Your task to perform on an android device: When is my next meeting? Image 0: 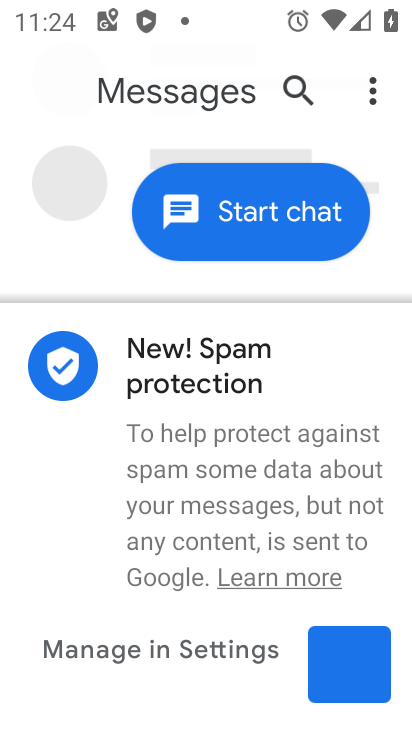
Step 0: press home button
Your task to perform on an android device: When is my next meeting? Image 1: 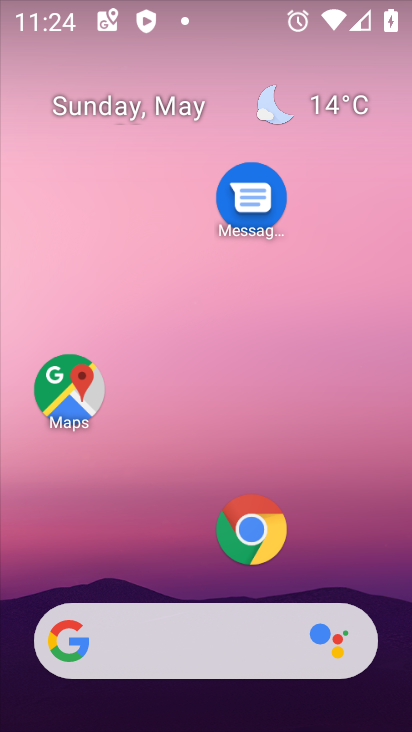
Step 1: drag from (165, 522) to (181, 196)
Your task to perform on an android device: When is my next meeting? Image 2: 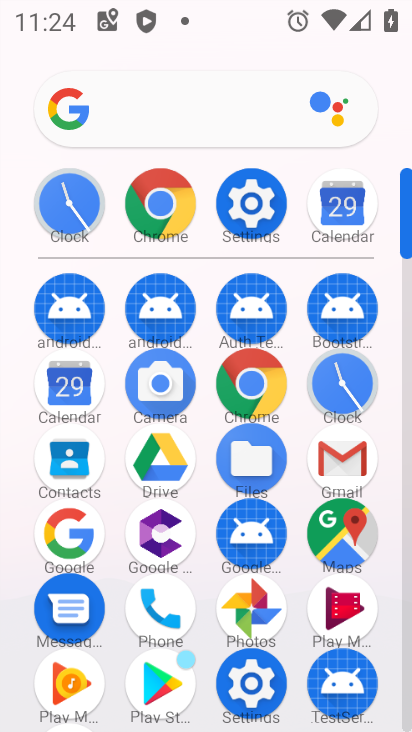
Step 2: click (71, 384)
Your task to perform on an android device: When is my next meeting? Image 3: 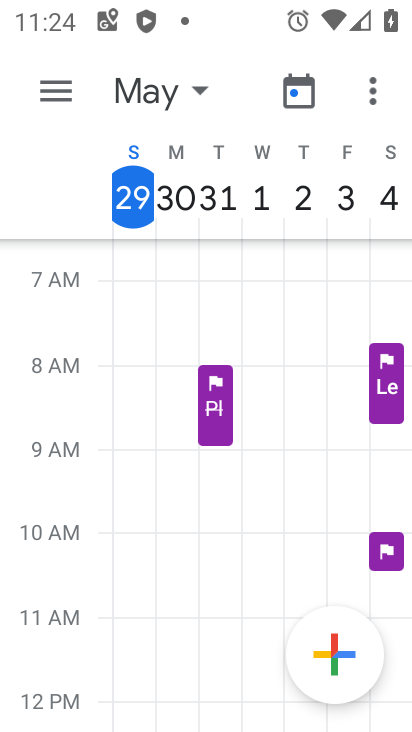
Step 3: click (49, 79)
Your task to perform on an android device: When is my next meeting? Image 4: 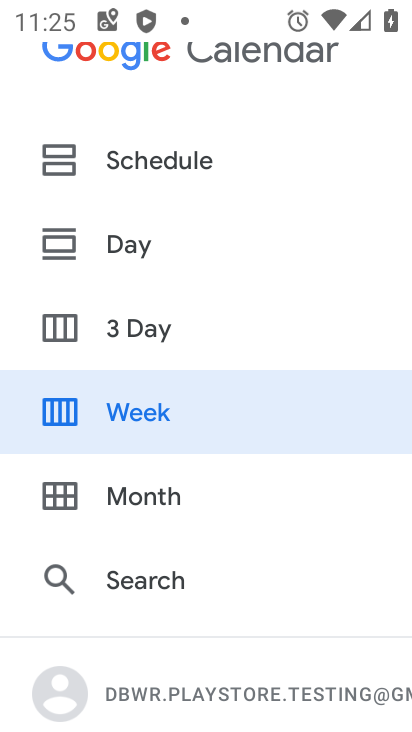
Step 4: click (164, 174)
Your task to perform on an android device: When is my next meeting? Image 5: 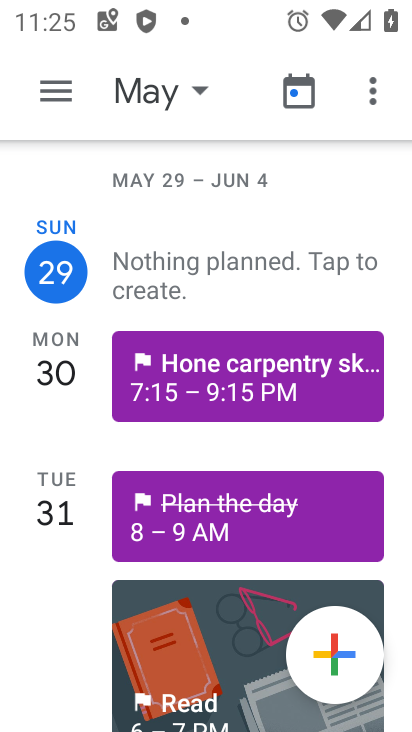
Step 5: task complete